Your task to perform on an android device: toggle priority inbox in the gmail app Image 0: 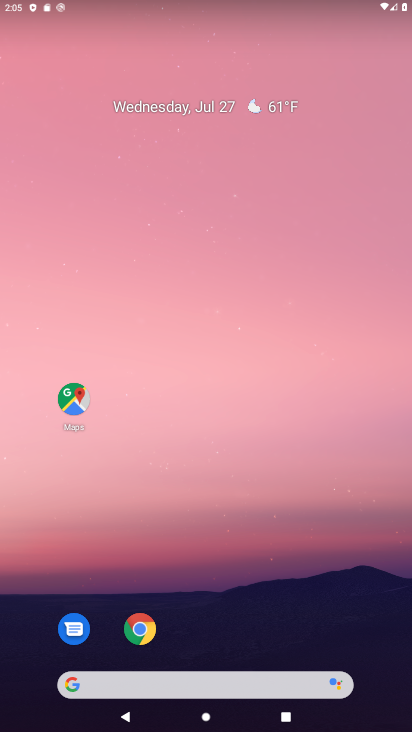
Step 0: drag from (179, 684) to (274, 40)
Your task to perform on an android device: toggle priority inbox in the gmail app Image 1: 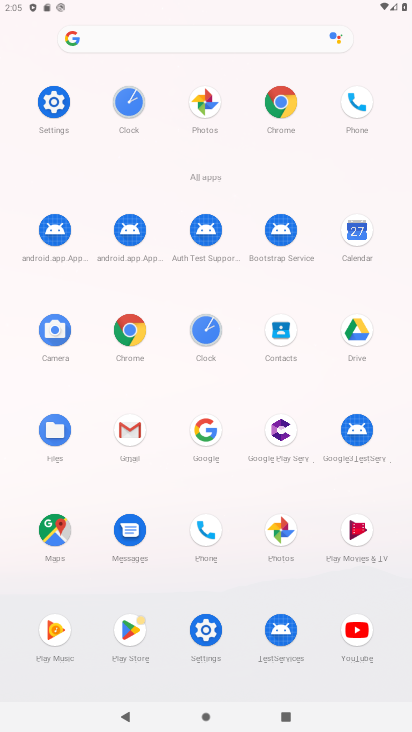
Step 1: click (129, 429)
Your task to perform on an android device: toggle priority inbox in the gmail app Image 2: 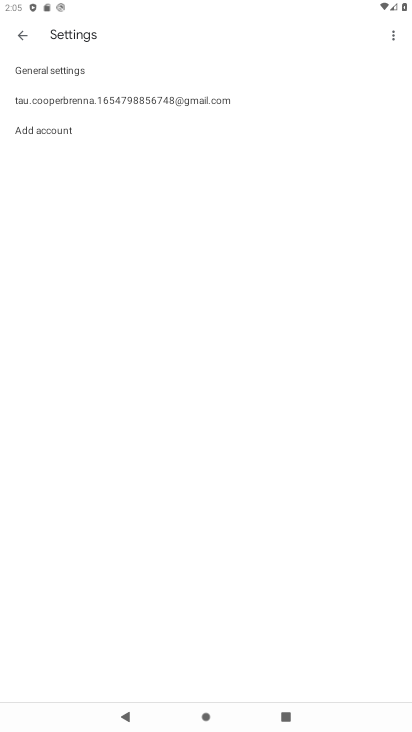
Step 2: click (108, 99)
Your task to perform on an android device: toggle priority inbox in the gmail app Image 3: 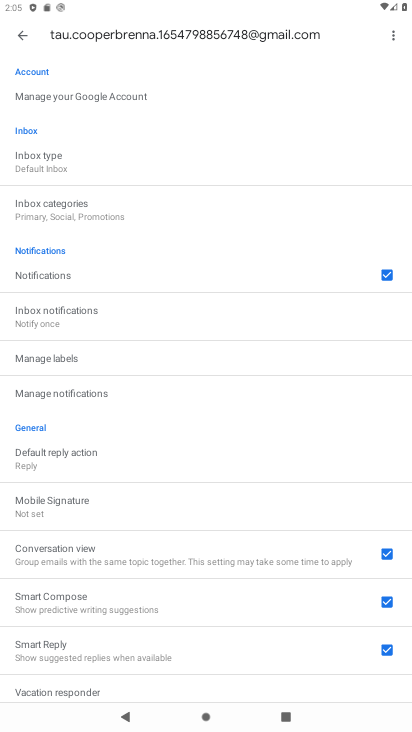
Step 3: click (53, 162)
Your task to perform on an android device: toggle priority inbox in the gmail app Image 4: 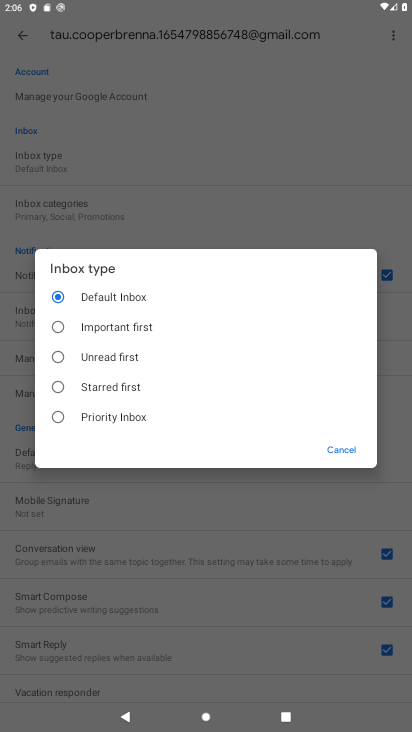
Step 4: click (58, 418)
Your task to perform on an android device: toggle priority inbox in the gmail app Image 5: 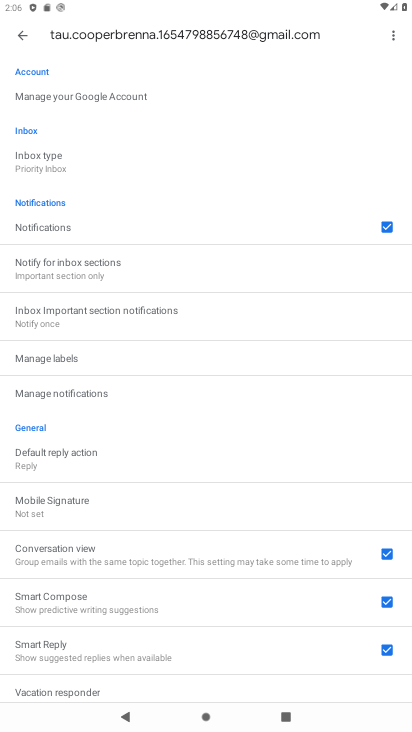
Step 5: task complete